Your task to perform on an android device: Show the shopping cart on walmart.com. Add usb-a to the cart on walmart.com Image 0: 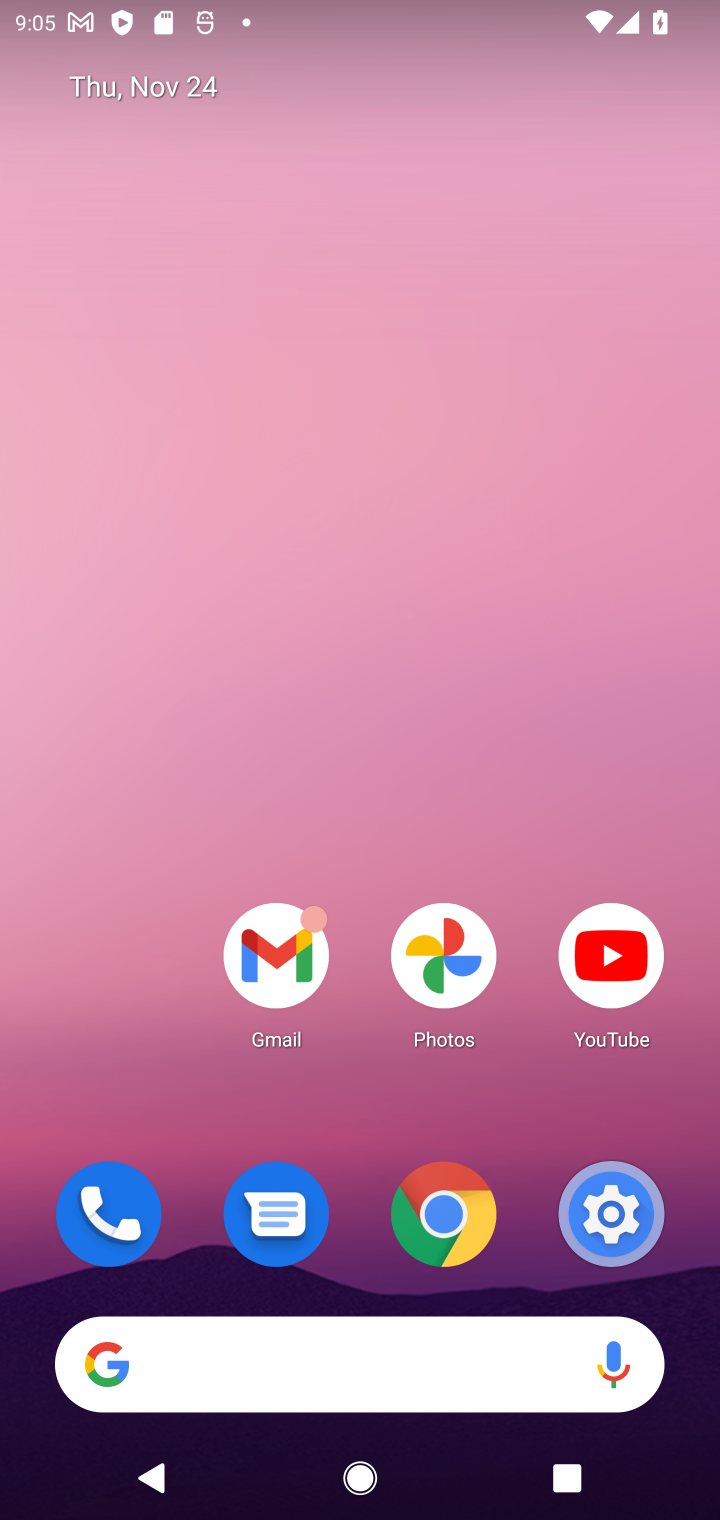
Step 0: click (457, 1377)
Your task to perform on an android device: Show the shopping cart on walmart.com. Add usb-a to the cart on walmart.com Image 1: 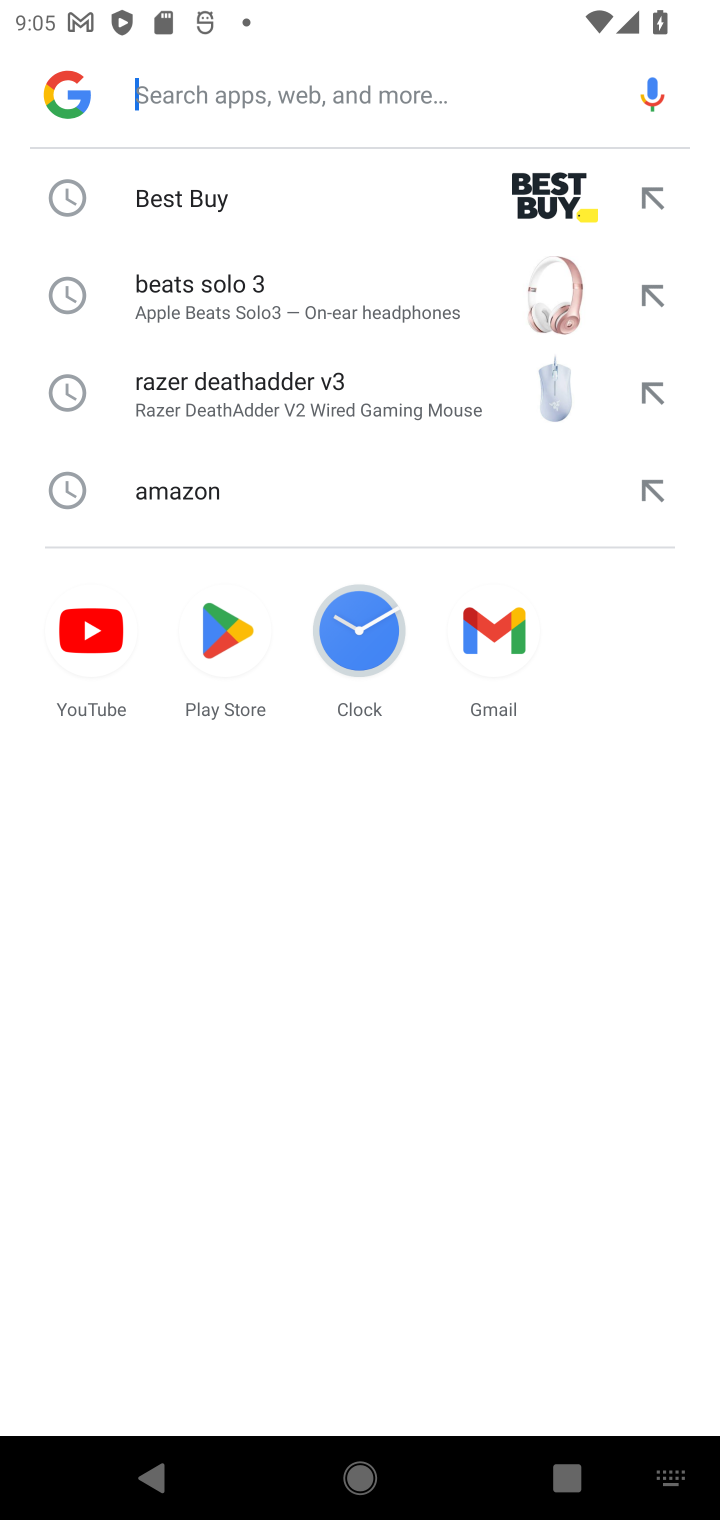
Step 1: type "walmart"
Your task to perform on an android device: Show the shopping cart on walmart.com. Add usb-a to the cart on walmart.com Image 2: 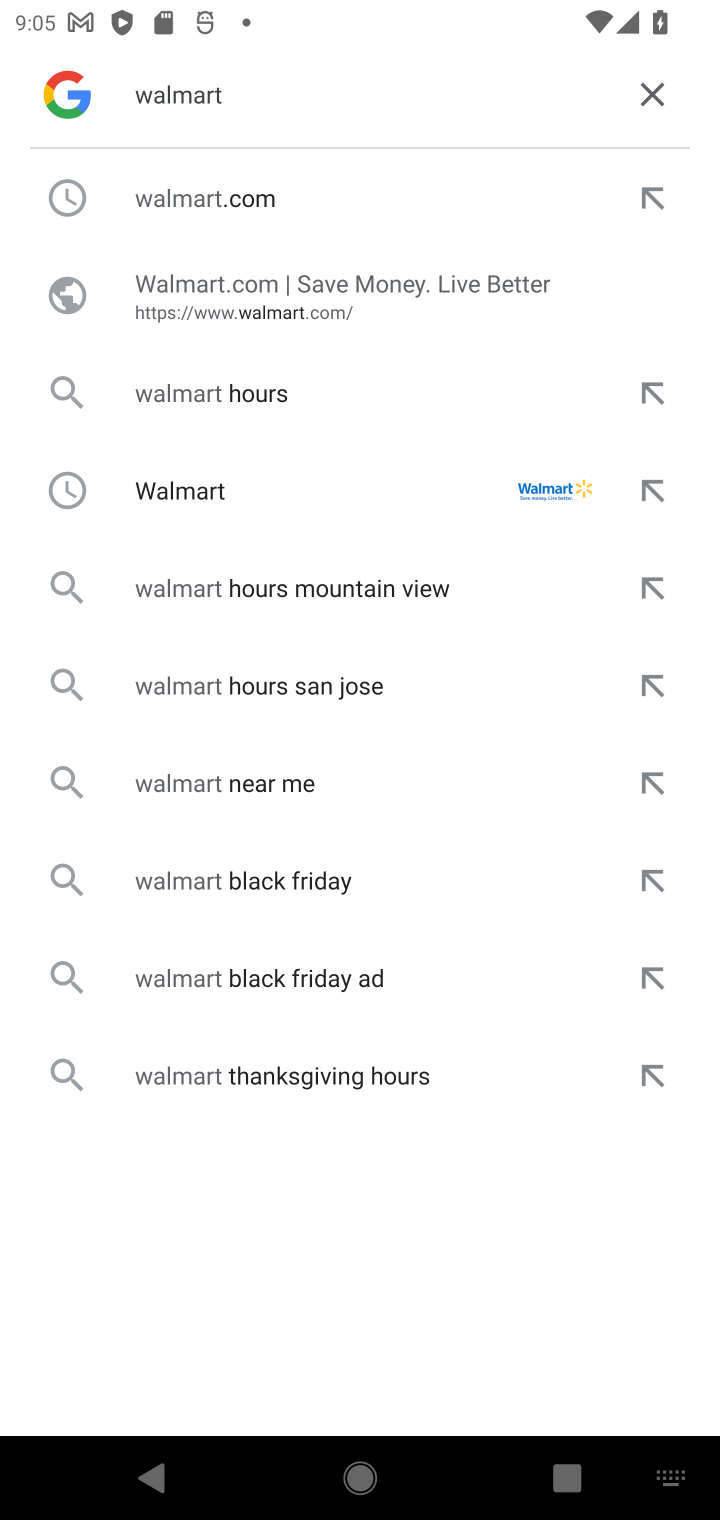
Step 2: click (328, 180)
Your task to perform on an android device: Show the shopping cart on walmart.com. Add usb-a to the cart on walmart.com Image 3: 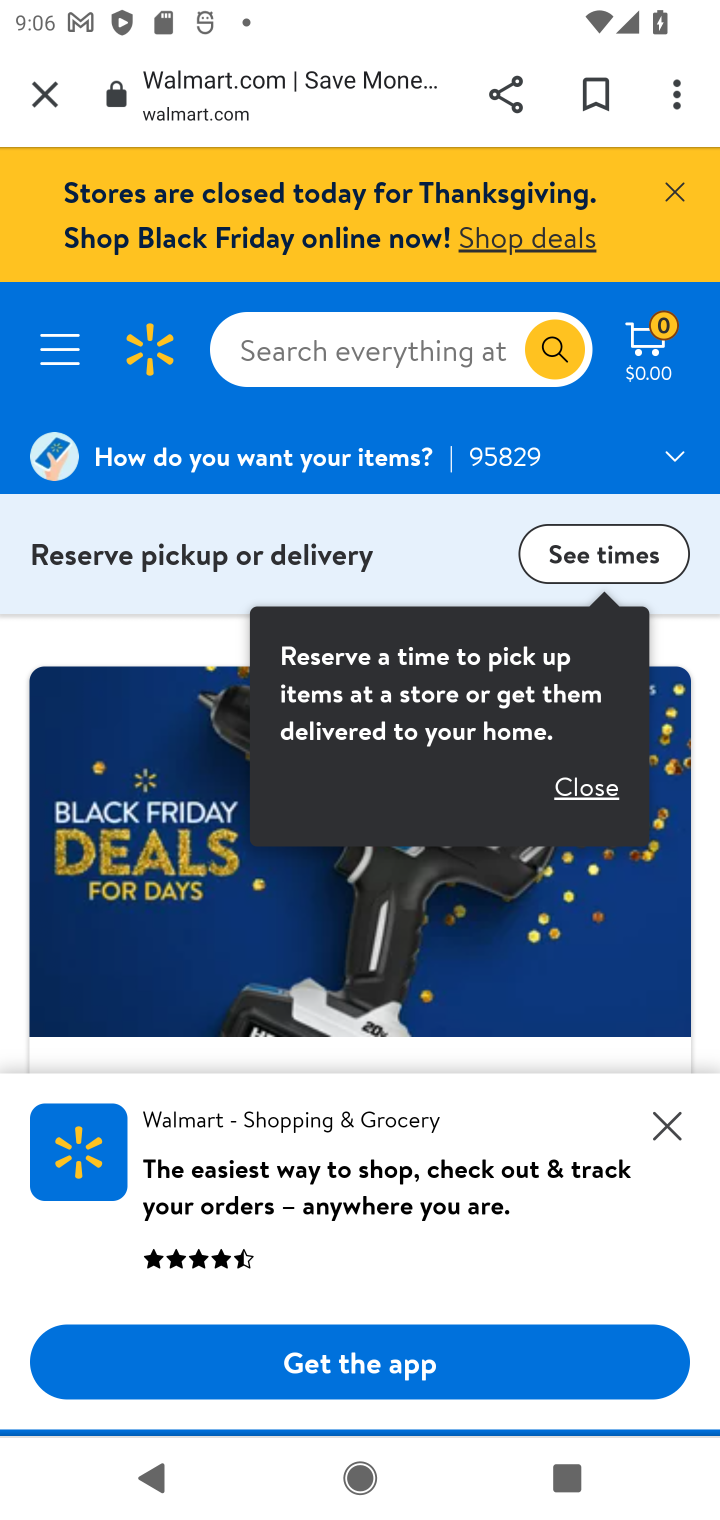
Step 3: click (424, 398)
Your task to perform on an android device: Show the shopping cart on walmart.com. Add usb-a to the cart on walmart.com Image 4: 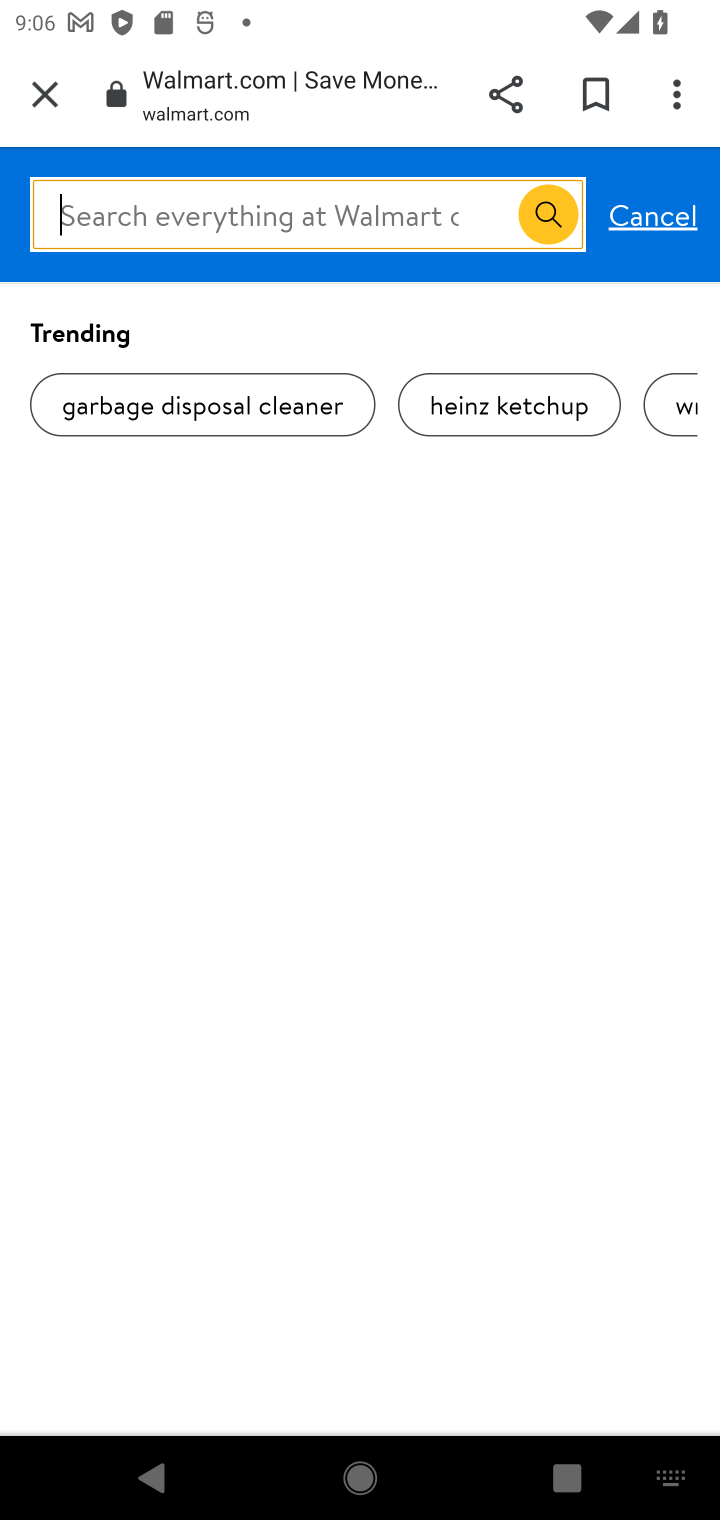
Step 4: type "usb-a "
Your task to perform on an android device: Show the shopping cart on walmart.com. Add usb-a to the cart on walmart.com Image 5: 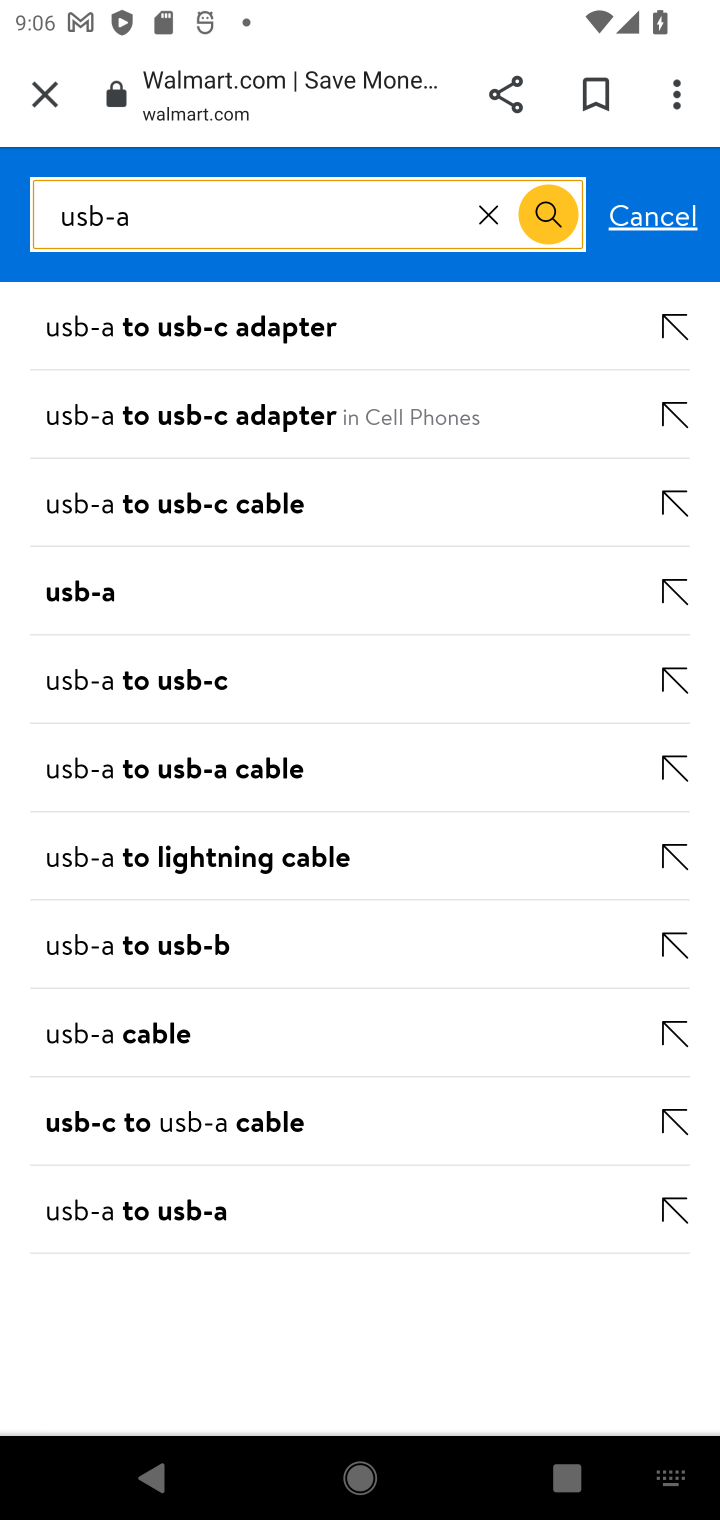
Step 5: click (88, 569)
Your task to perform on an android device: Show the shopping cart on walmart.com. Add usb-a to the cart on walmart.com Image 6: 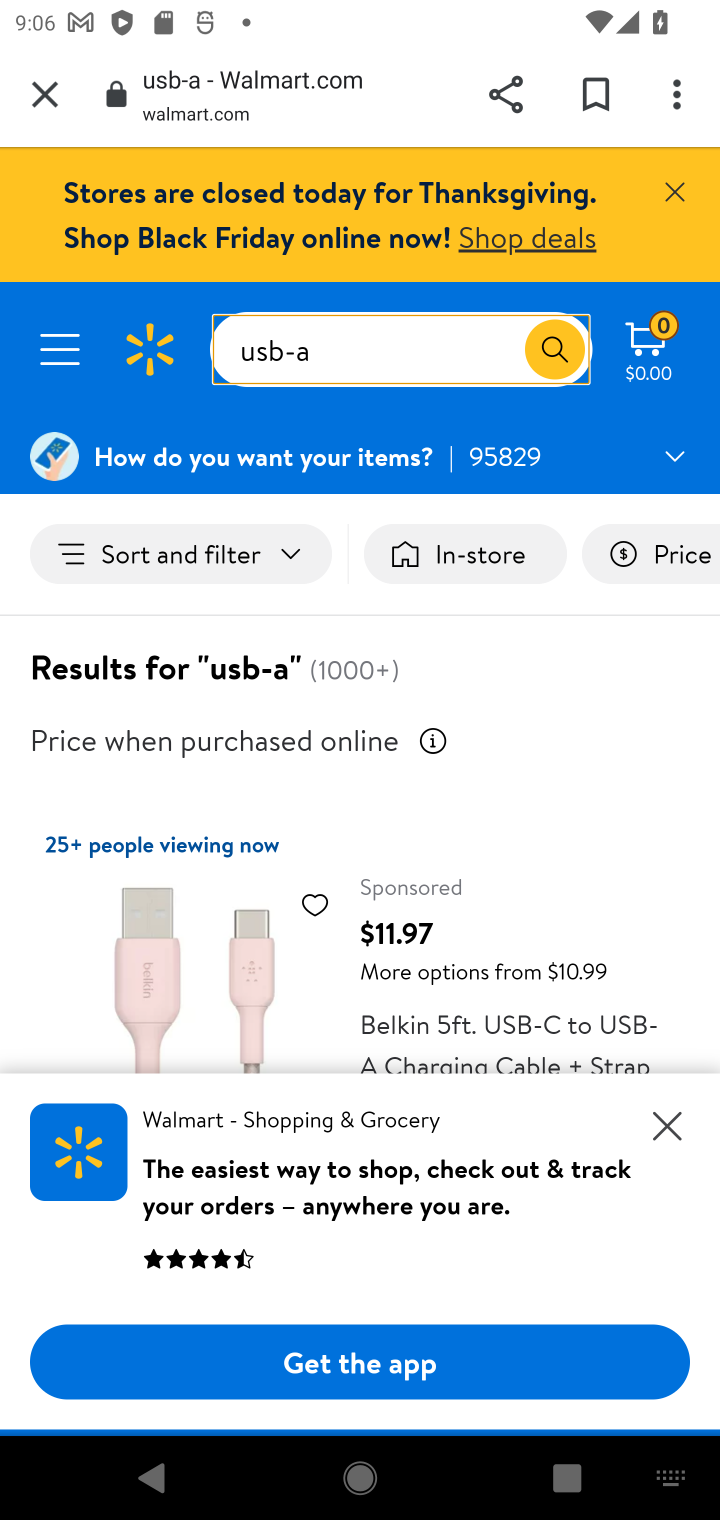
Step 6: click (680, 1136)
Your task to perform on an android device: Show the shopping cart on walmart.com. Add usb-a to the cart on walmart.com Image 7: 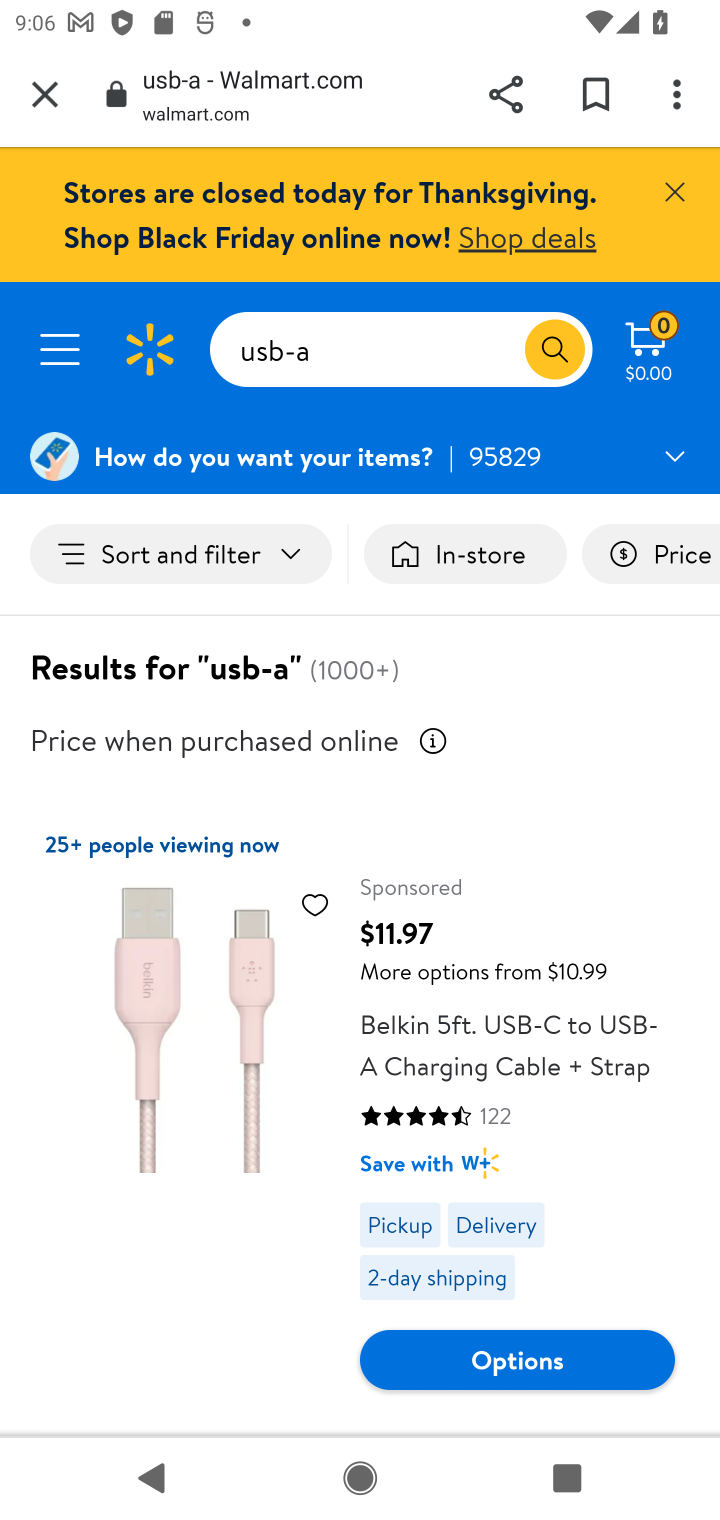
Step 7: click (494, 1359)
Your task to perform on an android device: Show the shopping cart on walmart.com. Add usb-a to the cart on walmart.com Image 8: 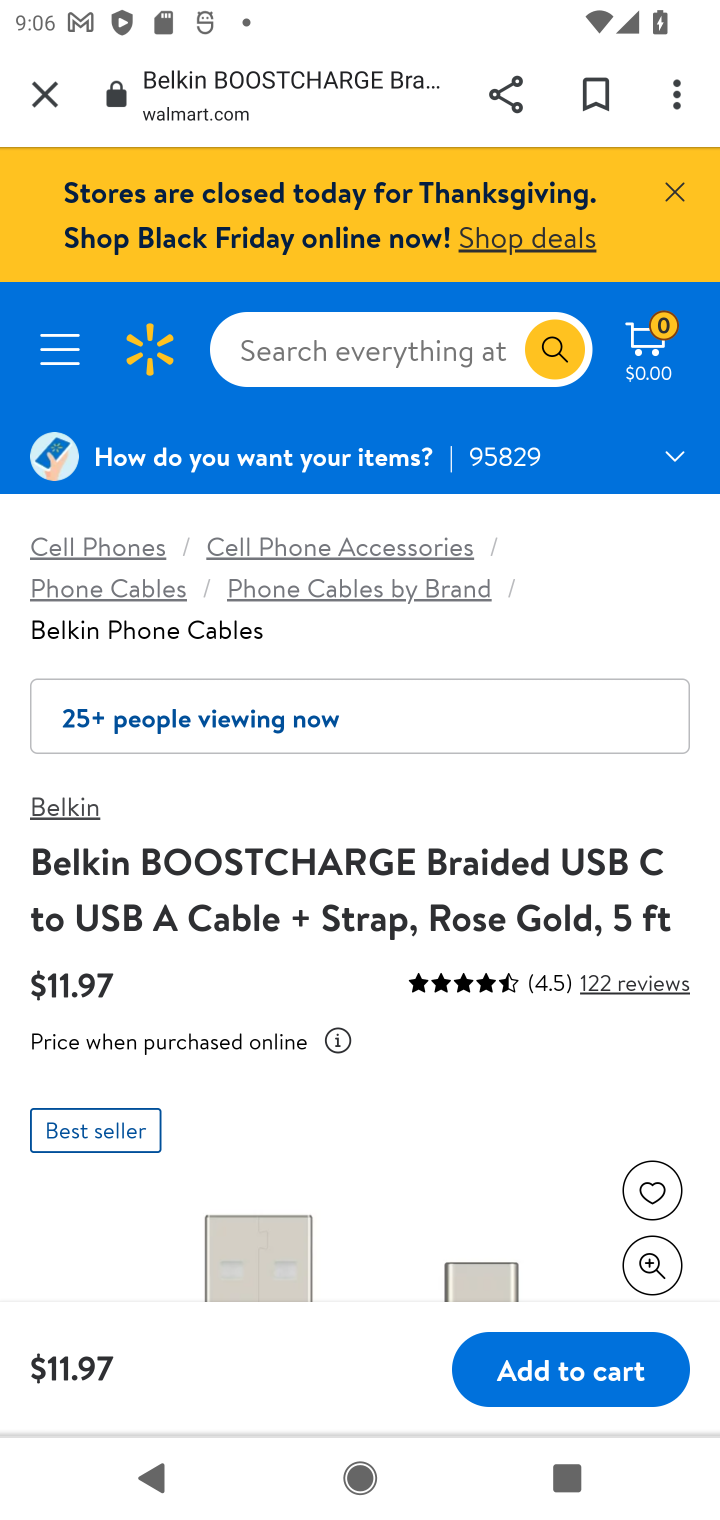
Step 8: click (494, 1368)
Your task to perform on an android device: Show the shopping cart on walmart.com. Add usb-a to the cart on walmart.com Image 9: 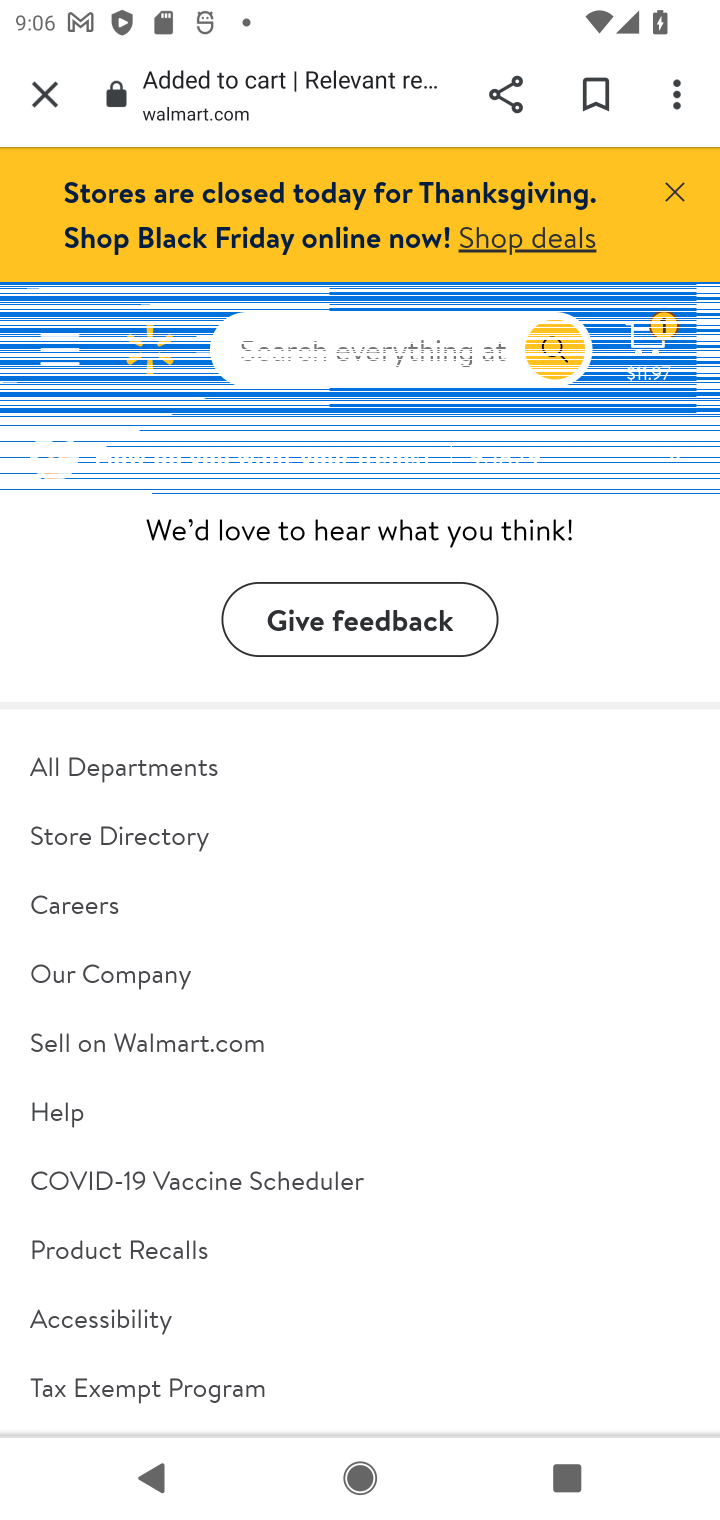
Step 9: task complete